Your task to perform on an android device: Open the calendar and show me this week's events? Image 0: 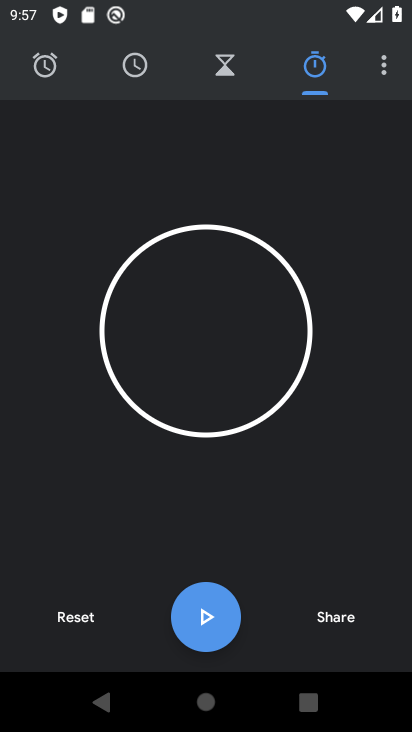
Step 0: press home button
Your task to perform on an android device: Open the calendar and show me this week's events? Image 1: 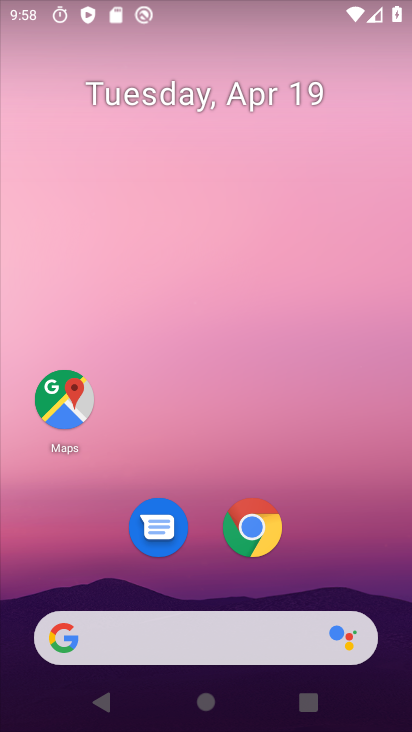
Step 1: drag from (224, 691) to (297, 110)
Your task to perform on an android device: Open the calendar and show me this week's events? Image 2: 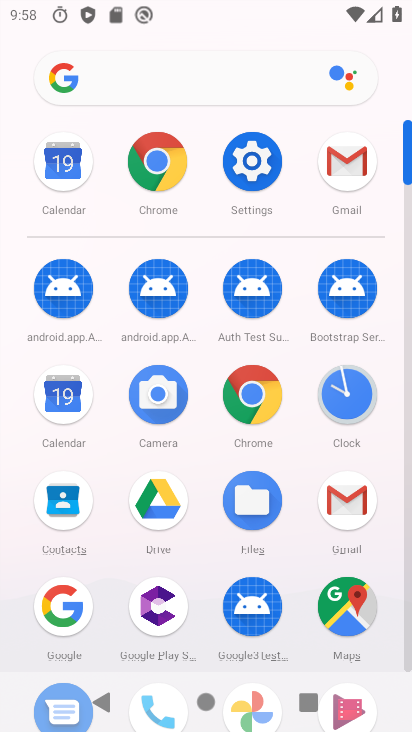
Step 2: click (68, 196)
Your task to perform on an android device: Open the calendar and show me this week's events? Image 3: 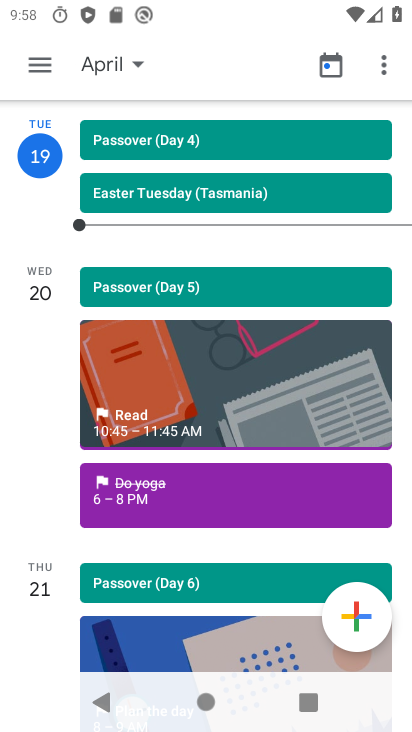
Step 3: click (53, 68)
Your task to perform on an android device: Open the calendar and show me this week's events? Image 4: 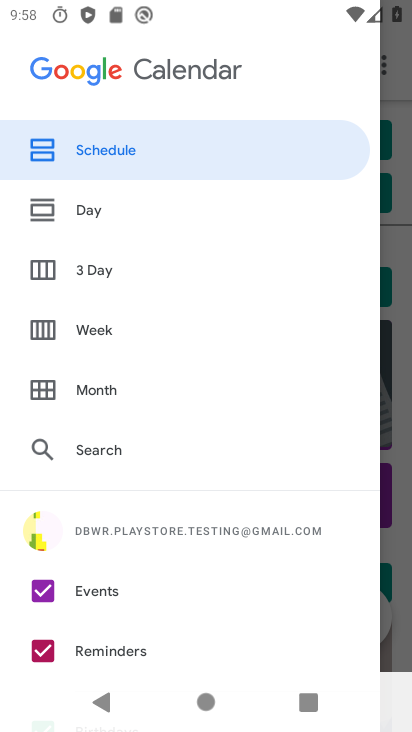
Step 4: click (92, 150)
Your task to perform on an android device: Open the calendar and show me this week's events? Image 5: 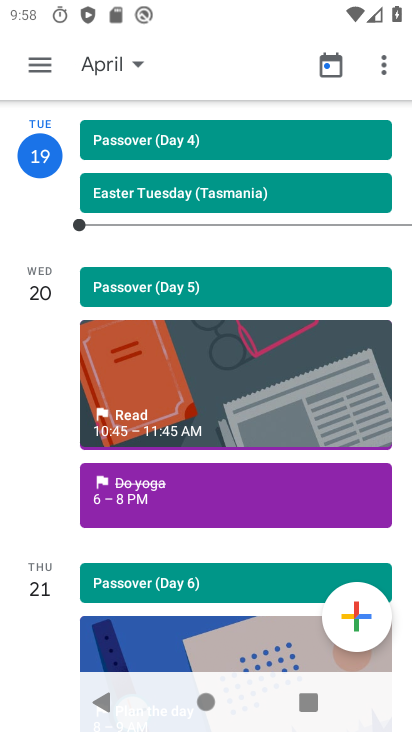
Step 5: task complete